Your task to perform on an android device: Open the stopwatch Image 0: 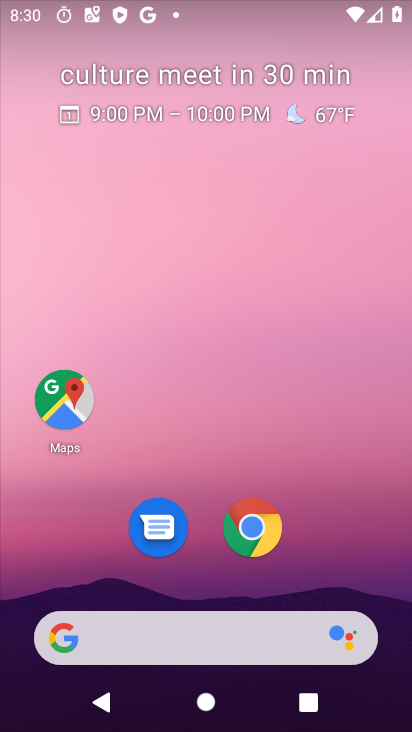
Step 0: drag from (243, 714) to (222, 187)
Your task to perform on an android device: Open the stopwatch Image 1: 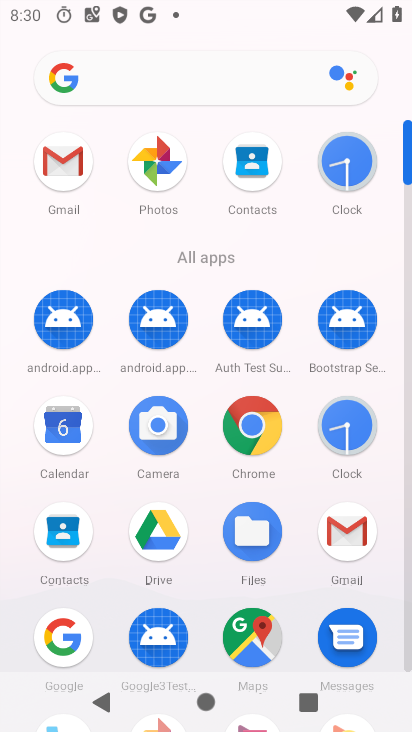
Step 1: click (343, 423)
Your task to perform on an android device: Open the stopwatch Image 2: 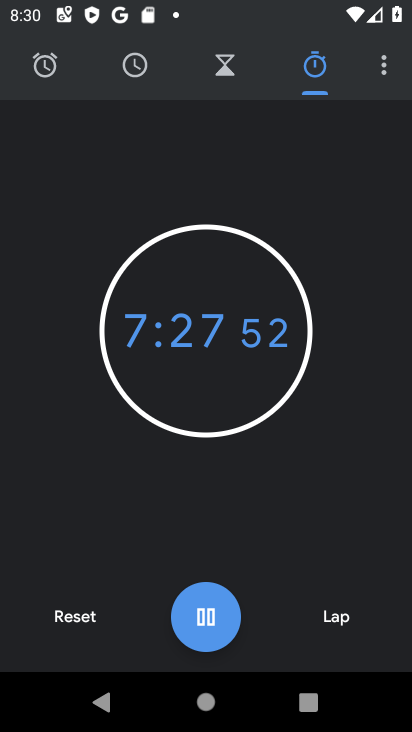
Step 2: task complete